Your task to perform on an android device: find snoozed emails in the gmail app Image 0: 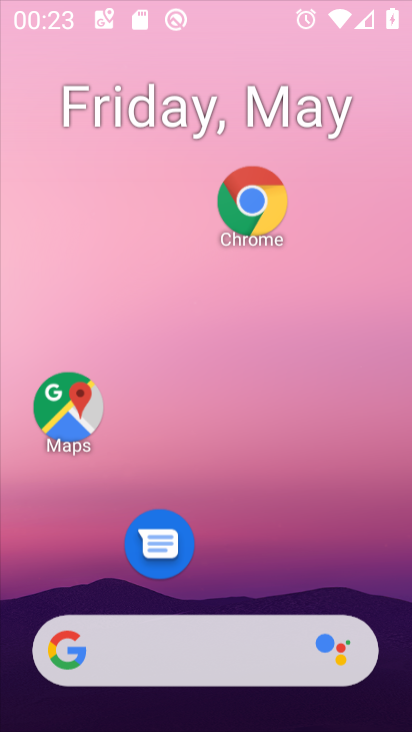
Step 0: click (196, 88)
Your task to perform on an android device: find snoozed emails in the gmail app Image 1: 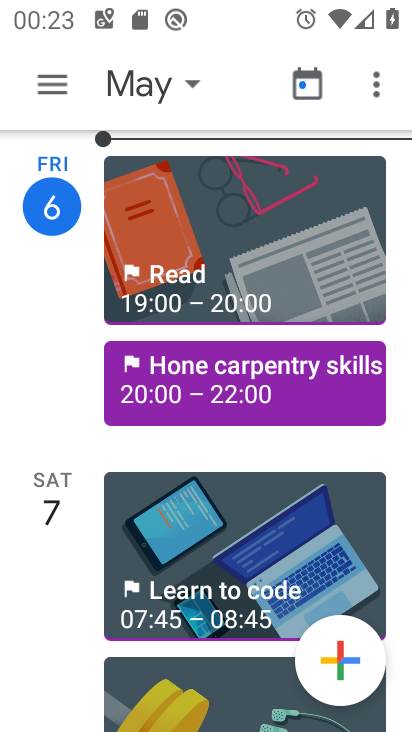
Step 1: press home button
Your task to perform on an android device: find snoozed emails in the gmail app Image 2: 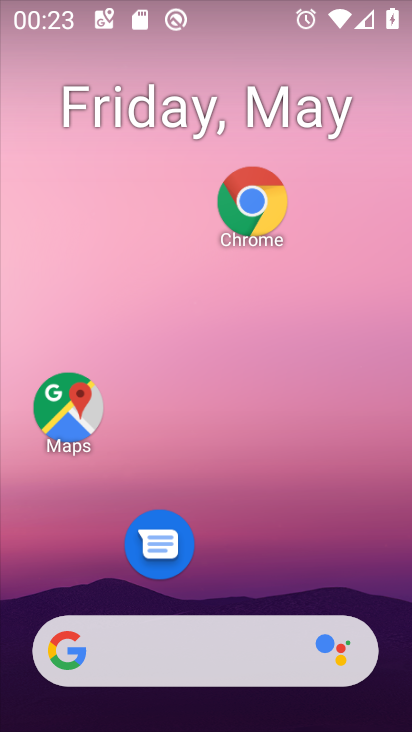
Step 2: drag from (221, 592) to (190, 35)
Your task to perform on an android device: find snoozed emails in the gmail app Image 3: 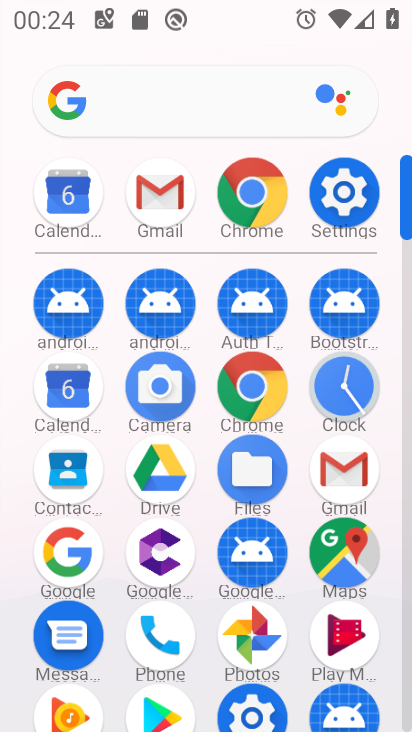
Step 3: click (342, 461)
Your task to perform on an android device: find snoozed emails in the gmail app Image 4: 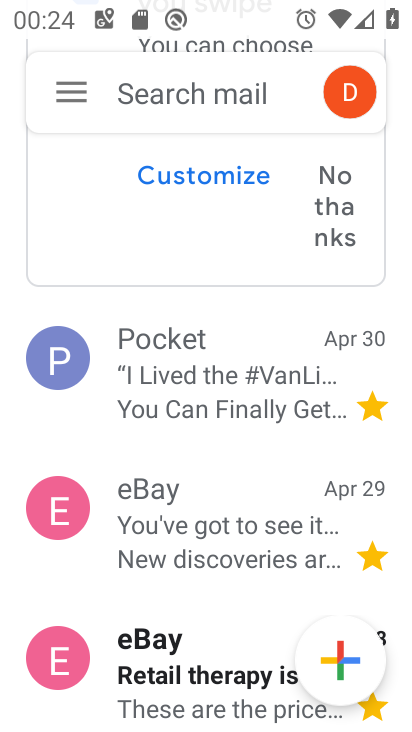
Step 4: click (76, 92)
Your task to perform on an android device: find snoozed emails in the gmail app Image 5: 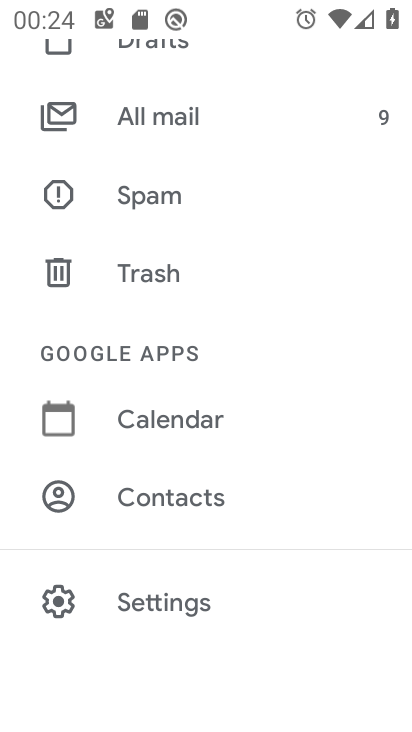
Step 5: drag from (169, 249) to (210, 670)
Your task to perform on an android device: find snoozed emails in the gmail app Image 6: 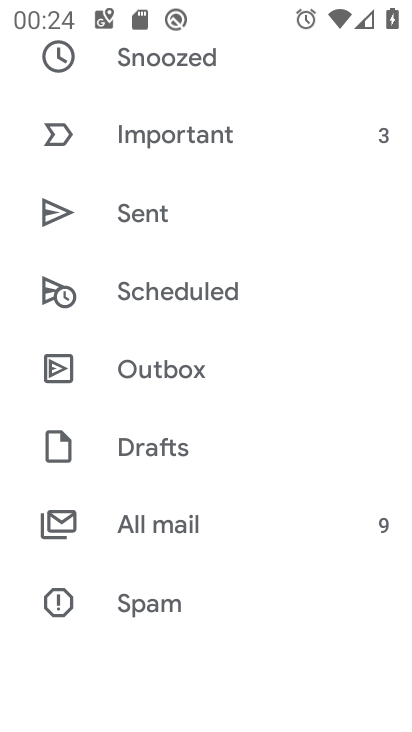
Step 6: click (106, 55)
Your task to perform on an android device: find snoozed emails in the gmail app Image 7: 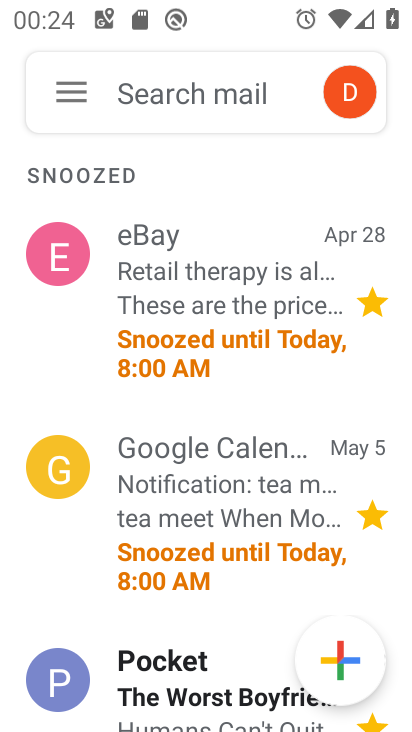
Step 7: task complete